Your task to perform on an android device: open app "Google Photos" Image 0: 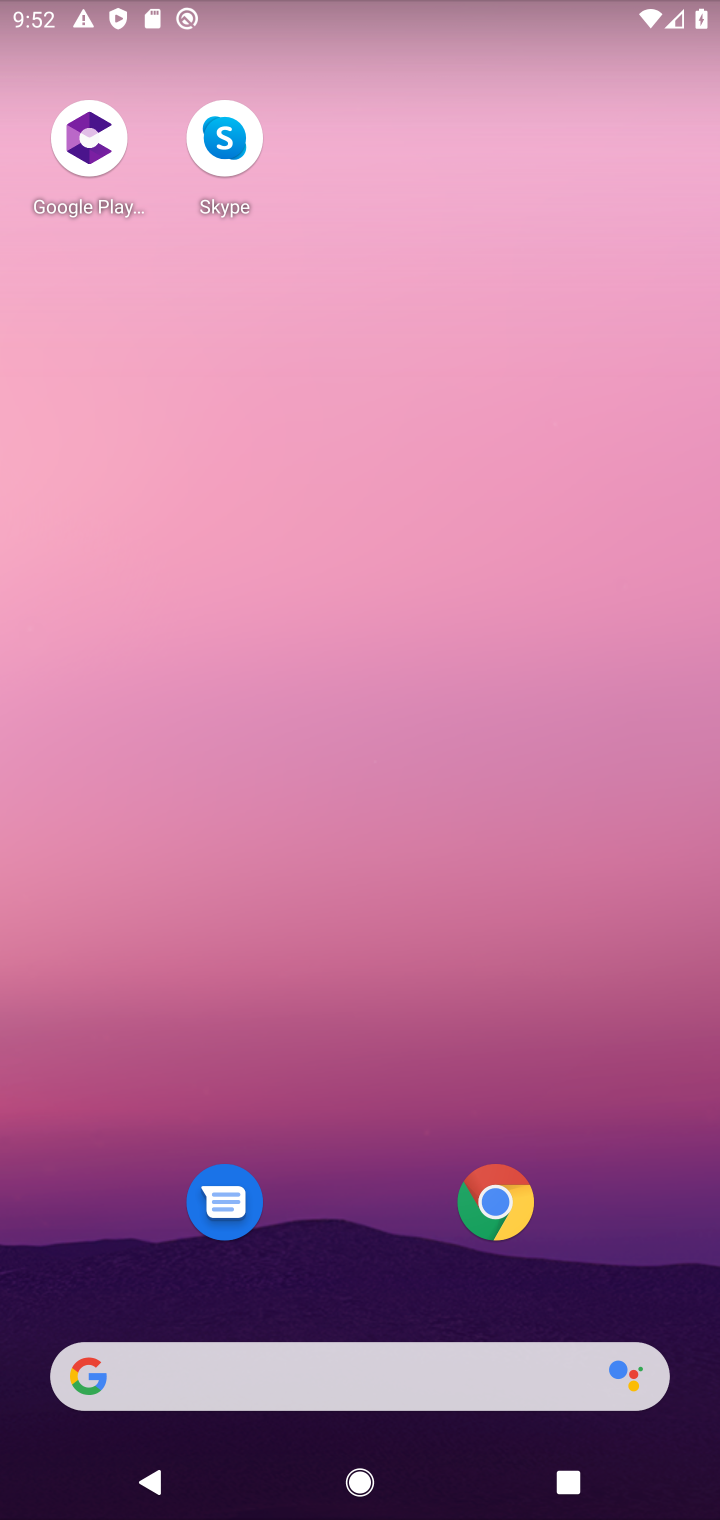
Step 0: drag from (399, 1308) to (363, 251)
Your task to perform on an android device: open app "Google Photos" Image 1: 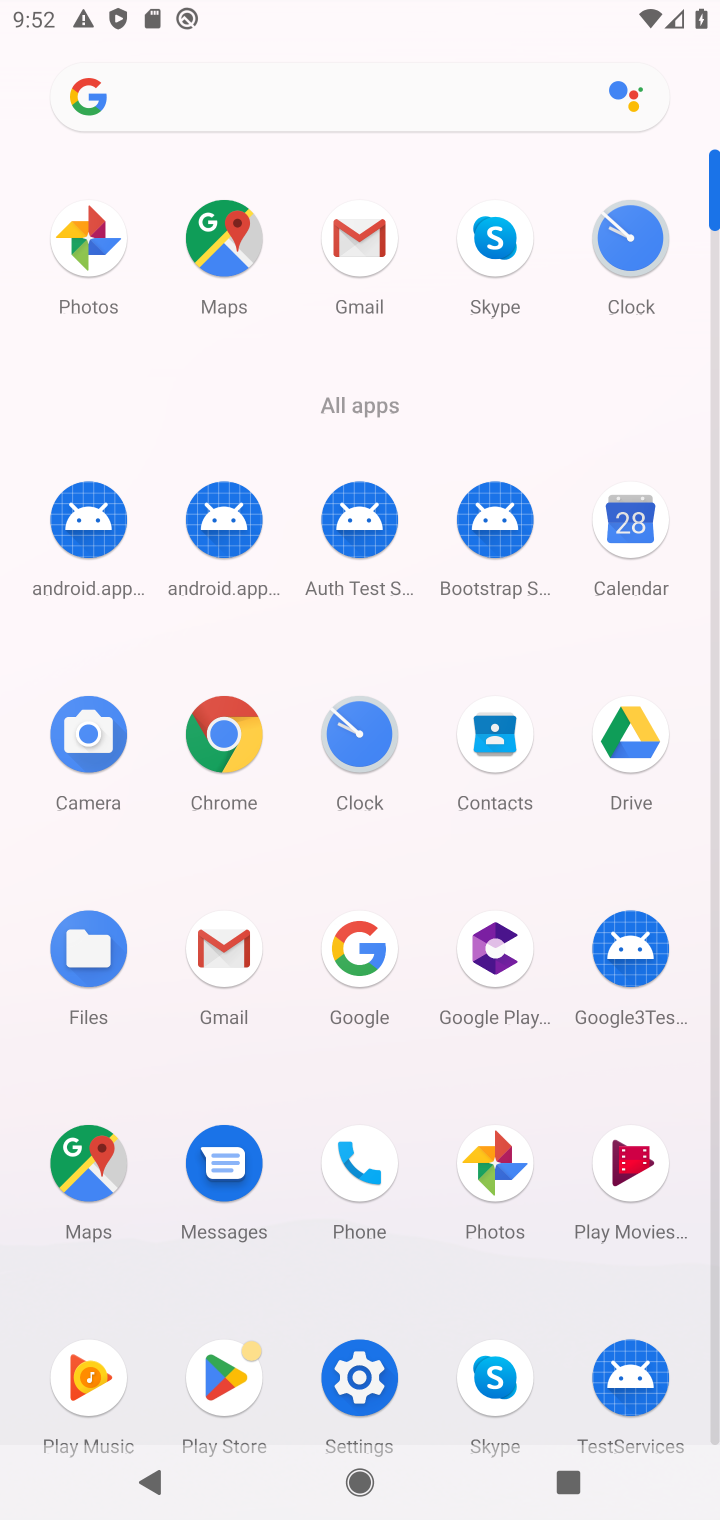
Step 1: click (165, 75)
Your task to perform on an android device: open app "Google Photos" Image 2: 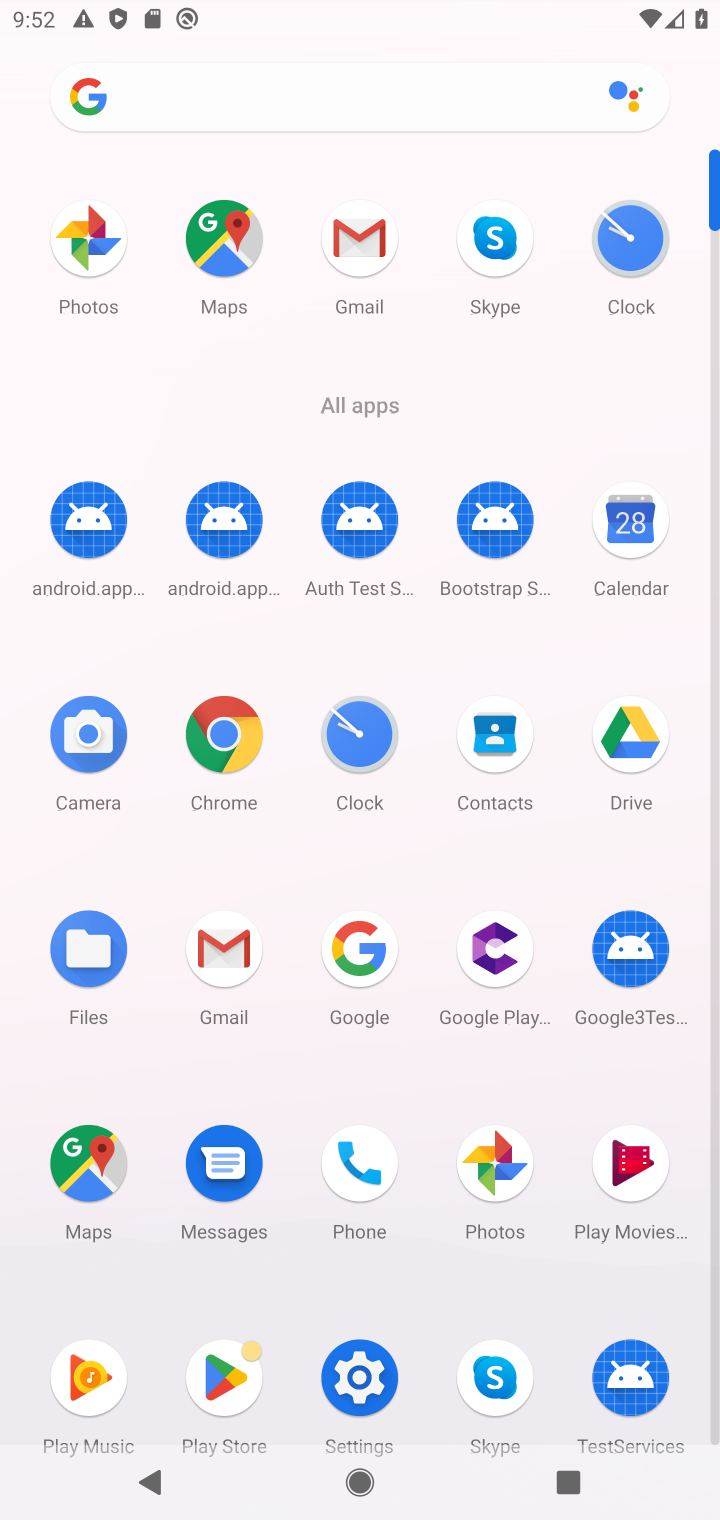
Step 2: click (165, 75)
Your task to perform on an android device: open app "Google Photos" Image 3: 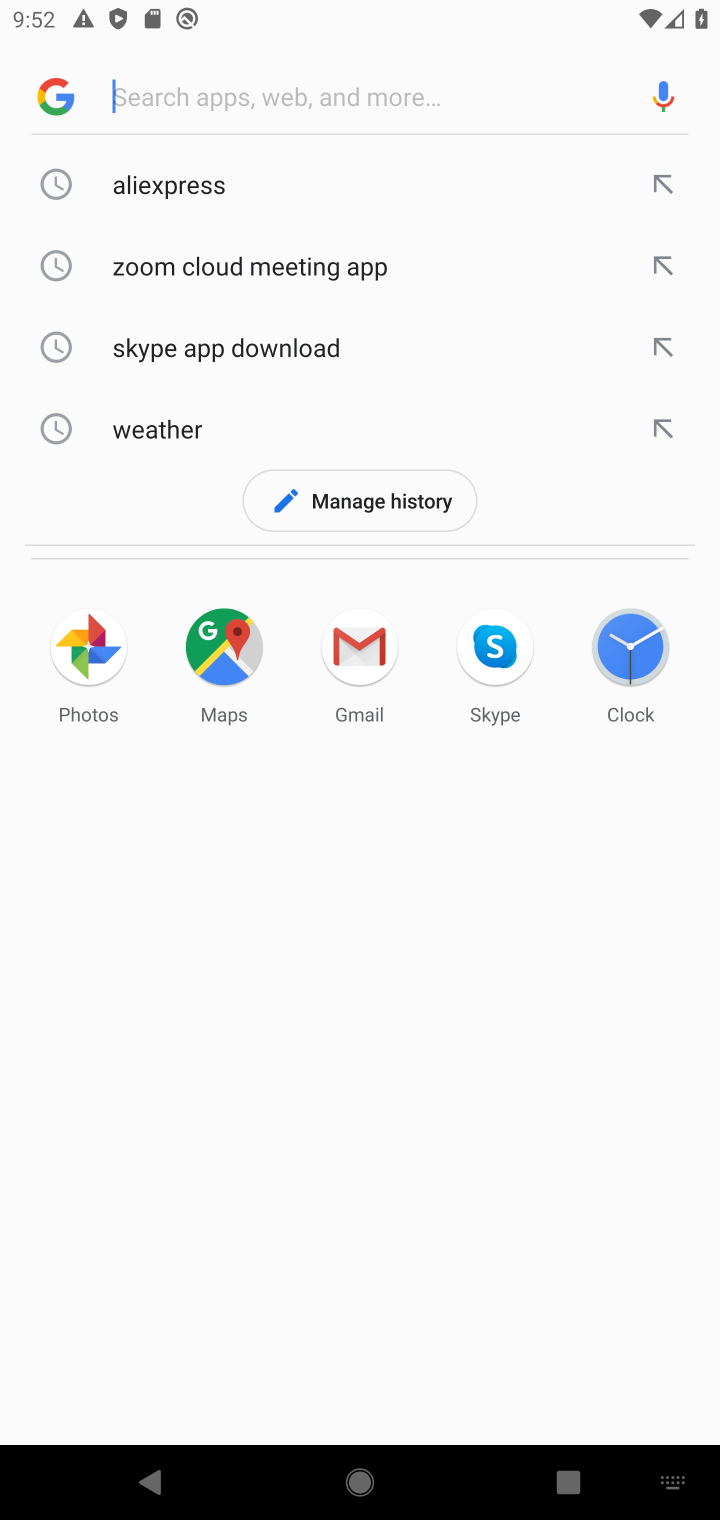
Step 3: type "google photo"
Your task to perform on an android device: open app "Google Photos" Image 4: 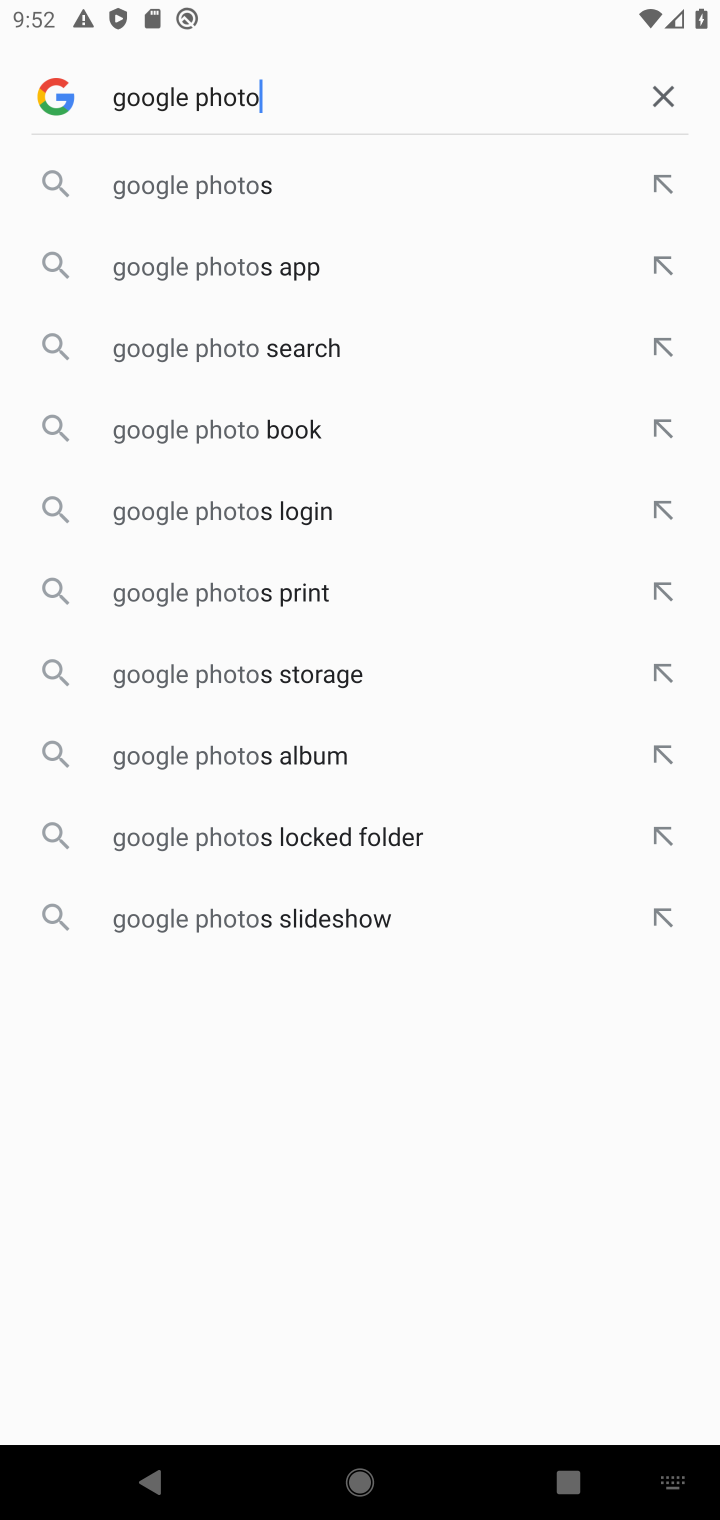
Step 4: click (176, 168)
Your task to perform on an android device: open app "Google Photos" Image 5: 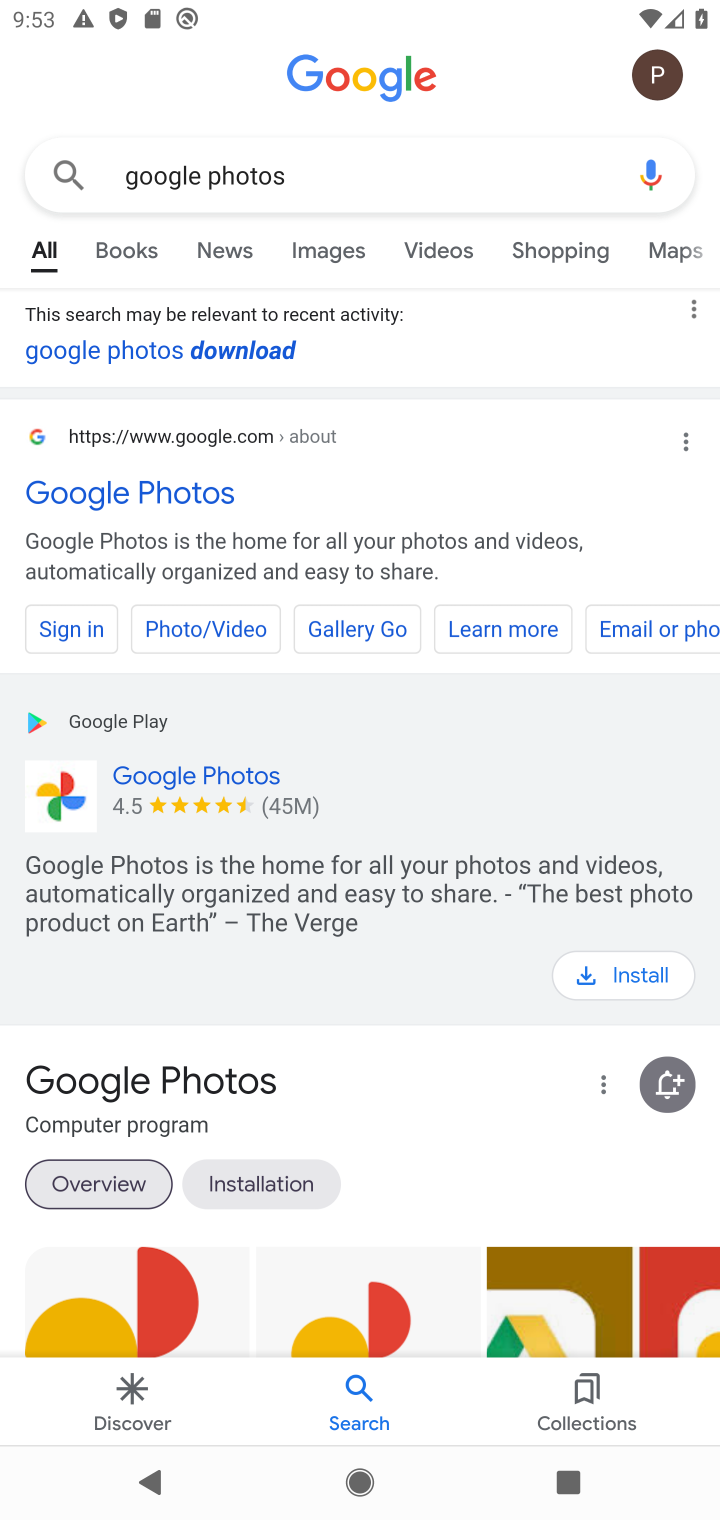
Step 5: click (619, 990)
Your task to perform on an android device: open app "Google Photos" Image 6: 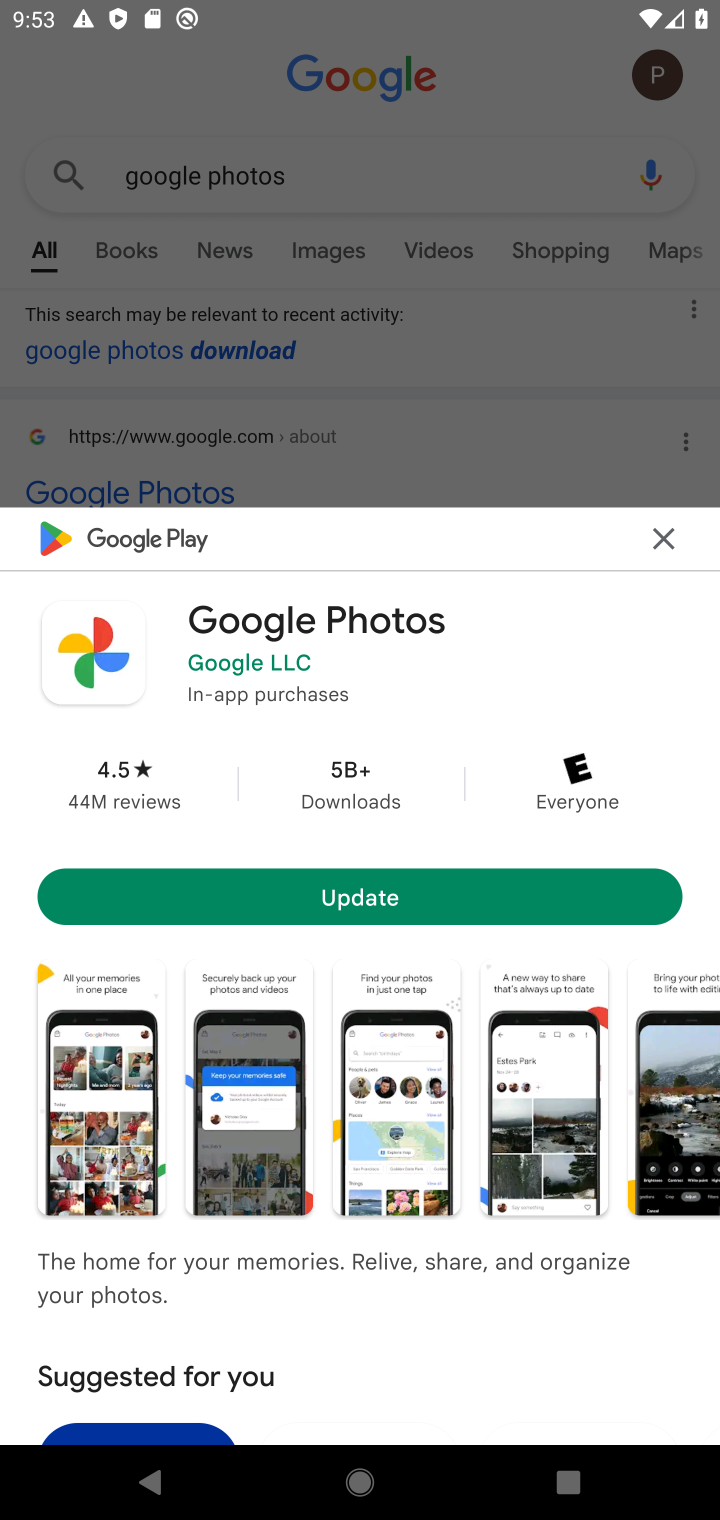
Step 6: click (447, 909)
Your task to perform on an android device: open app "Google Photos" Image 7: 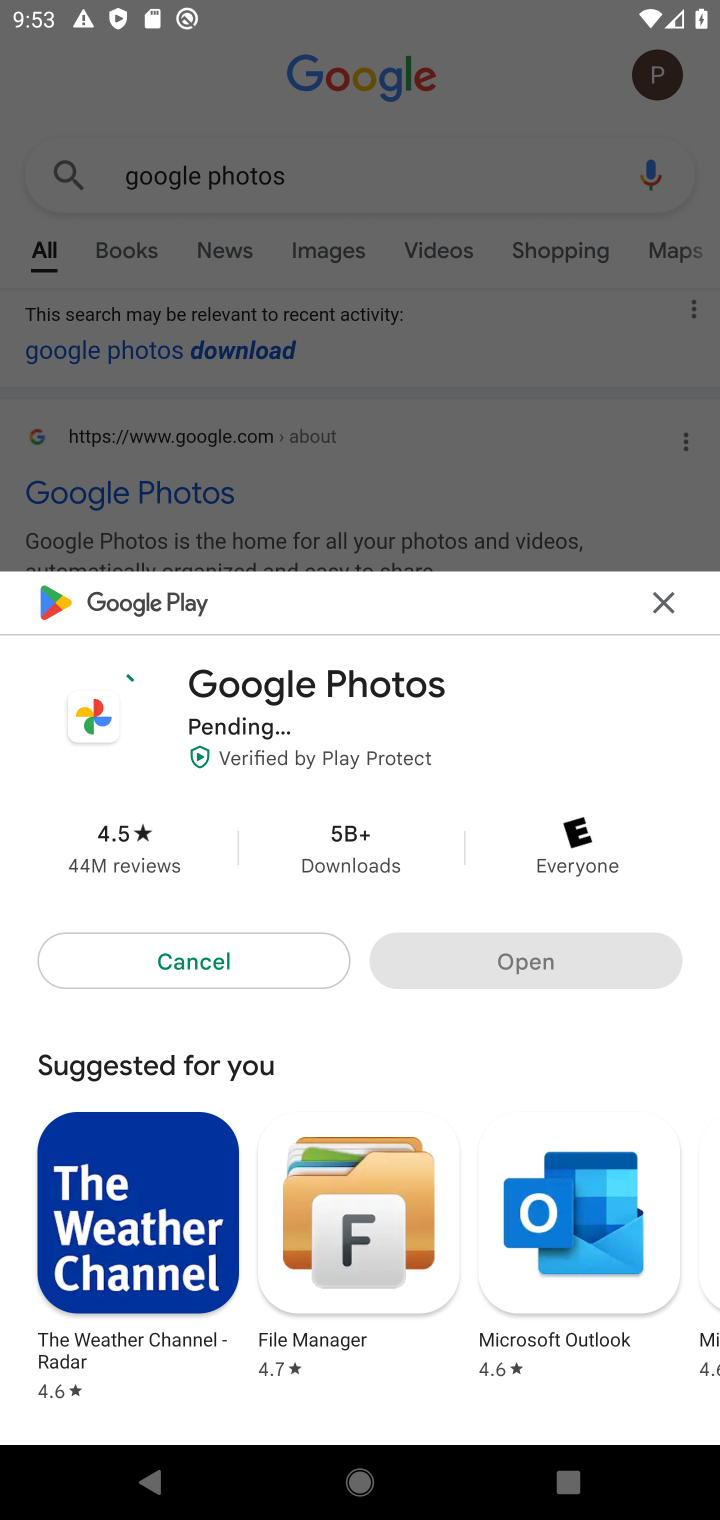
Step 7: task complete